Your task to perform on an android device: turn pop-ups on in chrome Image 0: 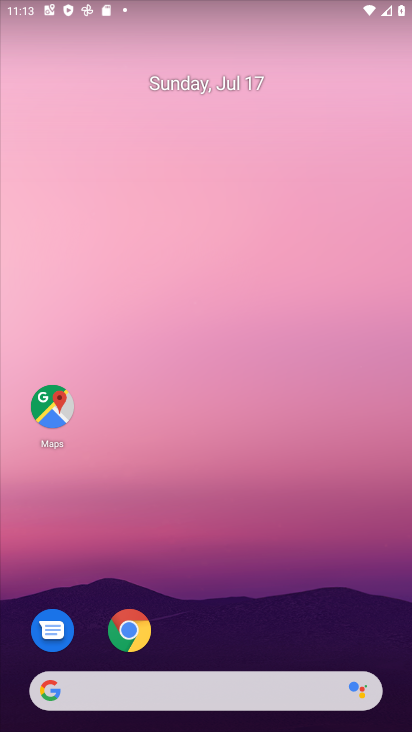
Step 0: click (133, 634)
Your task to perform on an android device: turn pop-ups on in chrome Image 1: 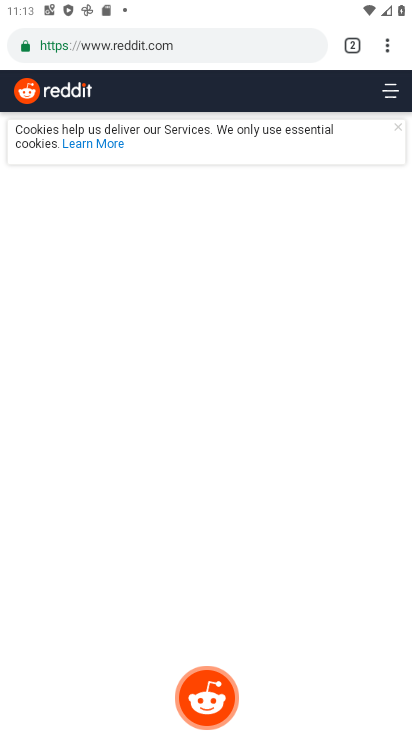
Step 1: click (395, 44)
Your task to perform on an android device: turn pop-ups on in chrome Image 2: 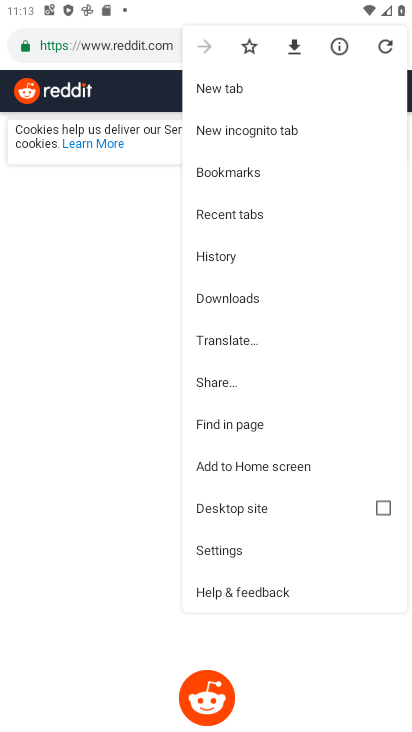
Step 2: click (239, 538)
Your task to perform on an android device: turn pop-ups on in chrome Image 3: 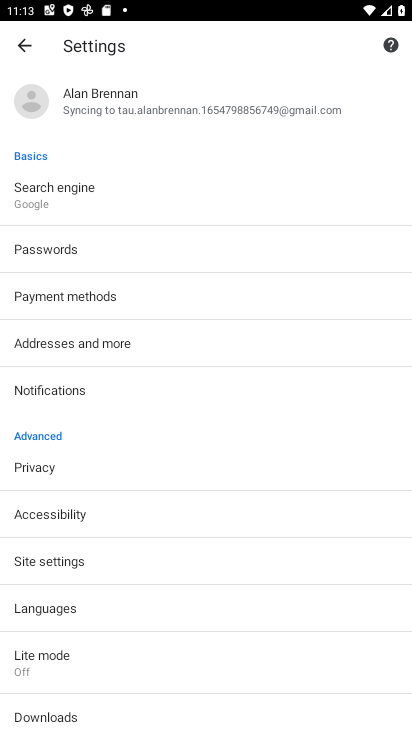
Step 3: click (181, 556)
Your task to perform on an android device: turn pop-ups on in chrome Image 4: 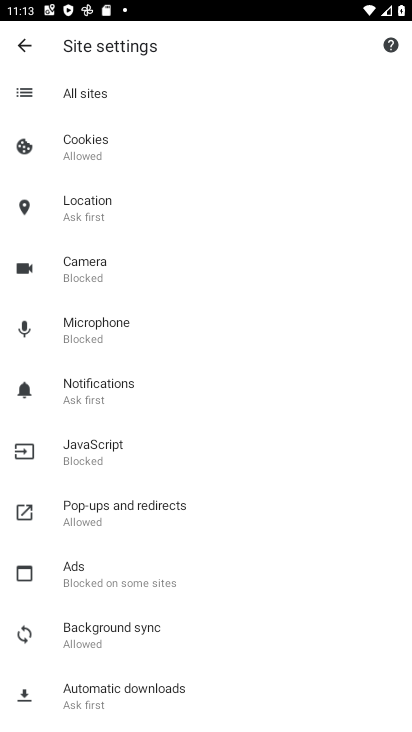
Step 4: click (135, 512)
Your task to perform on an android device: turn pop-ups on in chrome Image 5: 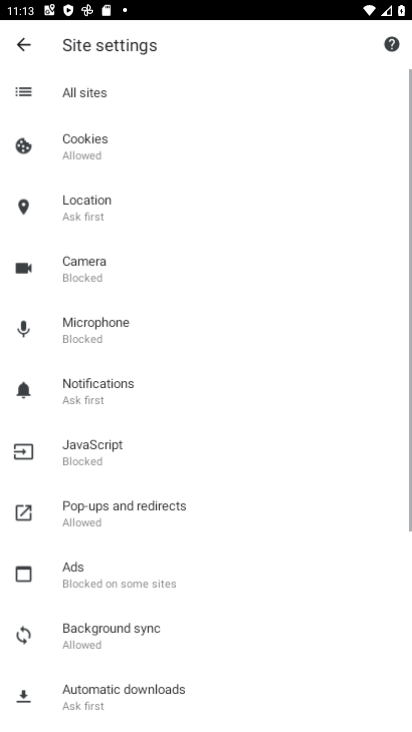
Step 5: click (135, 512)
Your task to perform on an android device: turn pop-ups on in chrome Image 6: 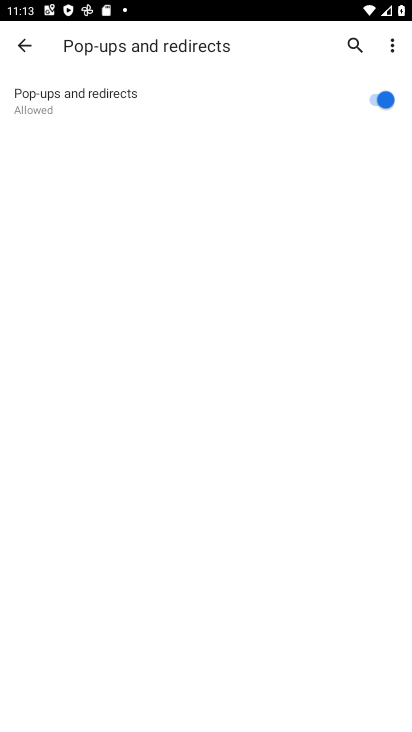
Step 6: click (379, 92)
Your task to perform on an android device: turn pop-ups on in chrome Image 7: 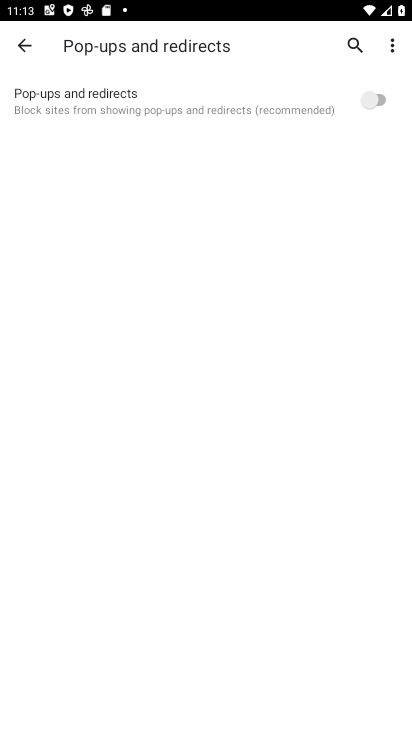
Step 7: task complete